Your task to perform on an android device: Open display settings Image 0: 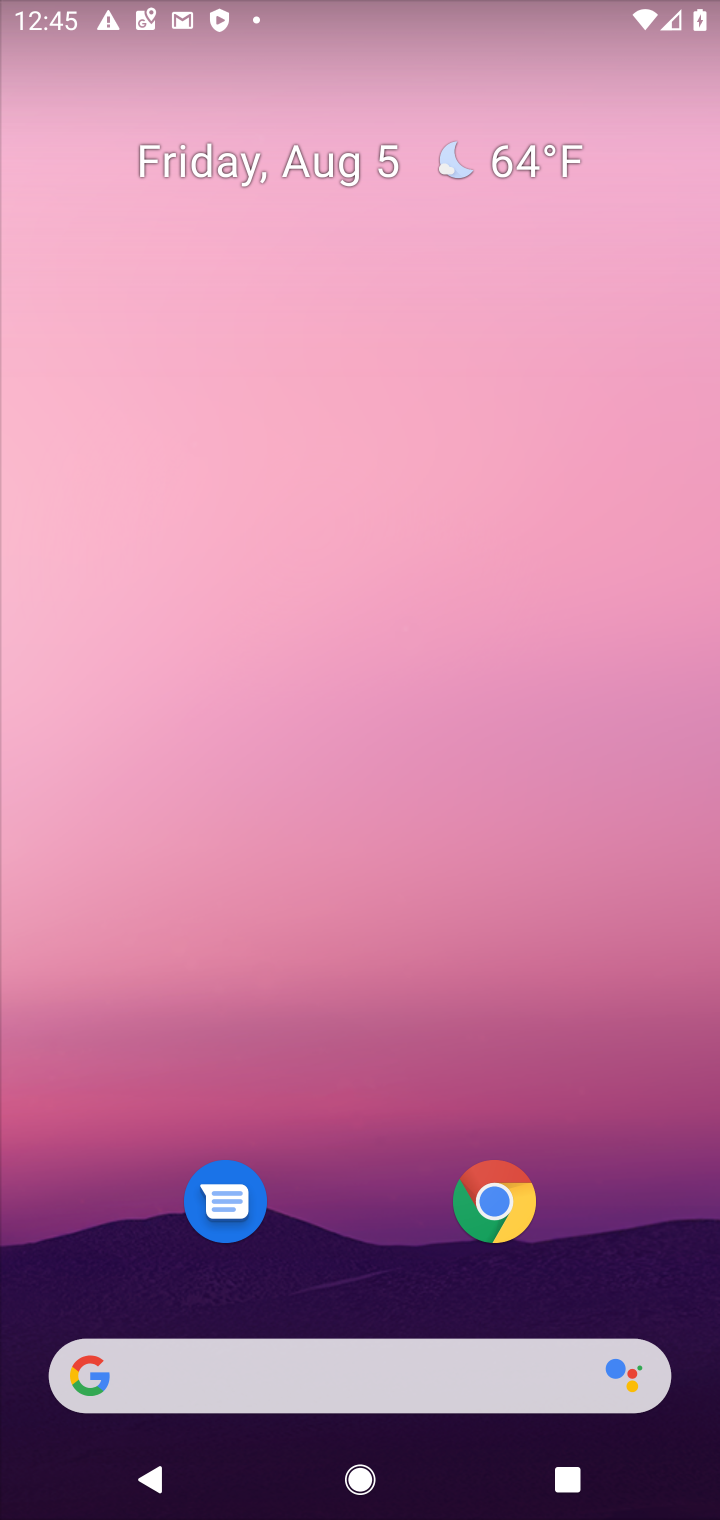
Step 0: drag from (638, 1278) to (491, 198)
Your task to perform on an android device: Open display settings Image 1: 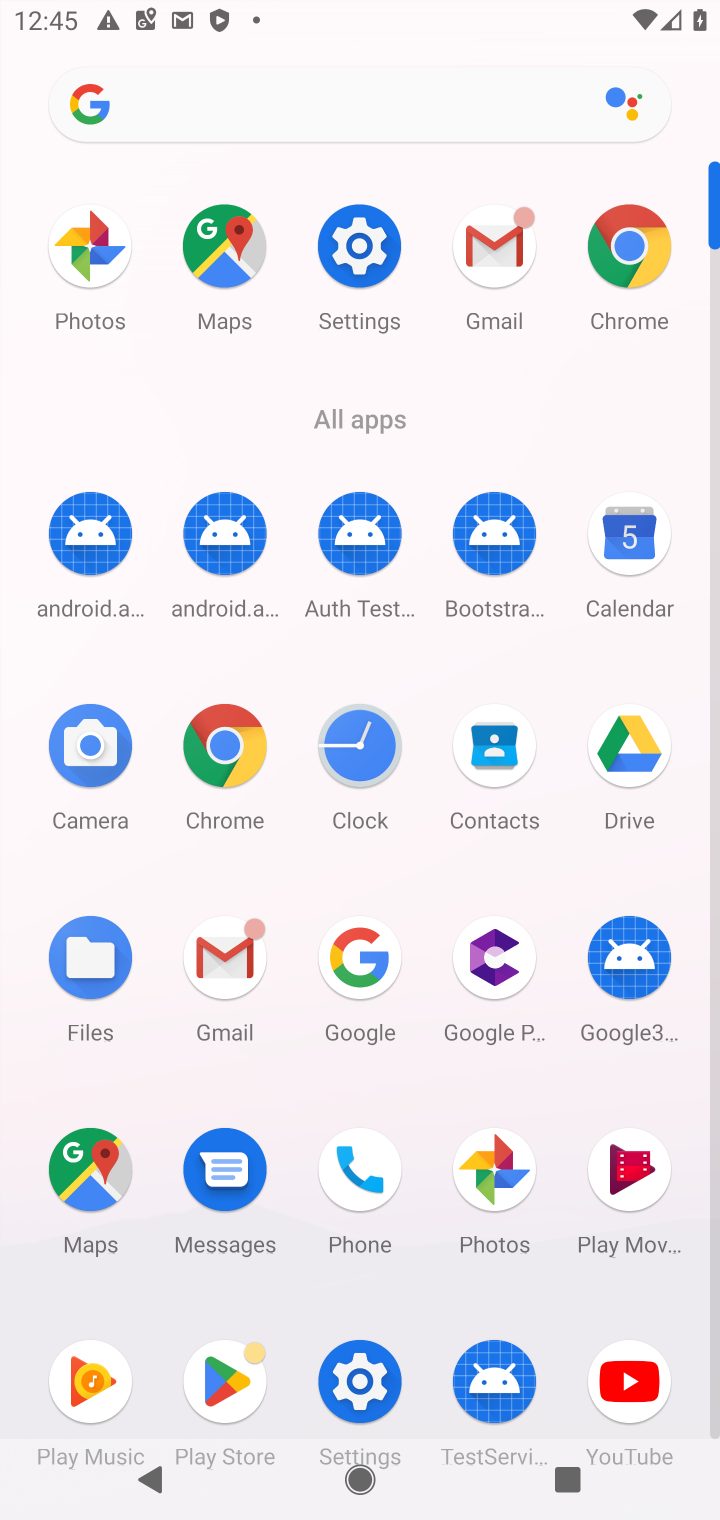
Step 1: click (353, 238)
Your task to perform on an android device: Open display settings Image 2: 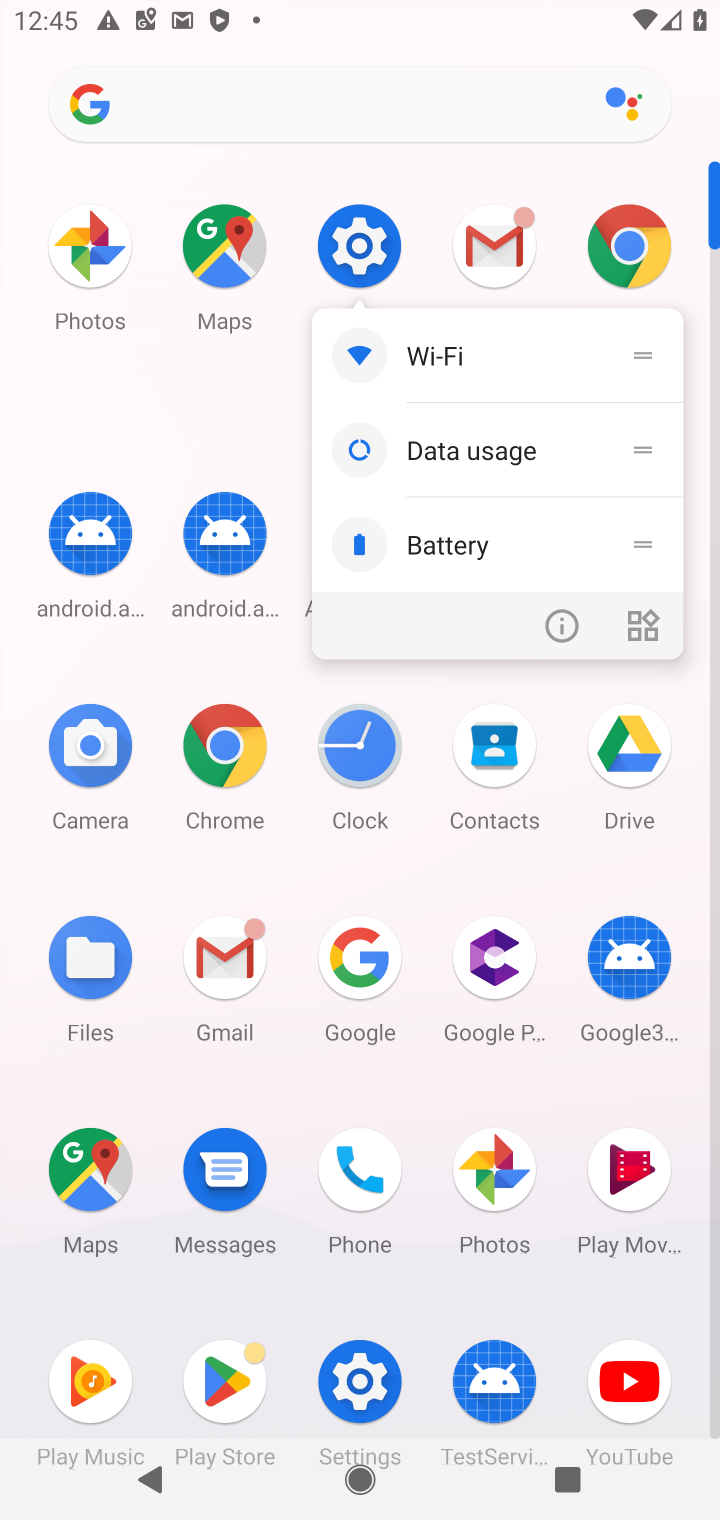
Step 2: click (353, 238)
Your task to perform on an android device: Open display settings Image 3: 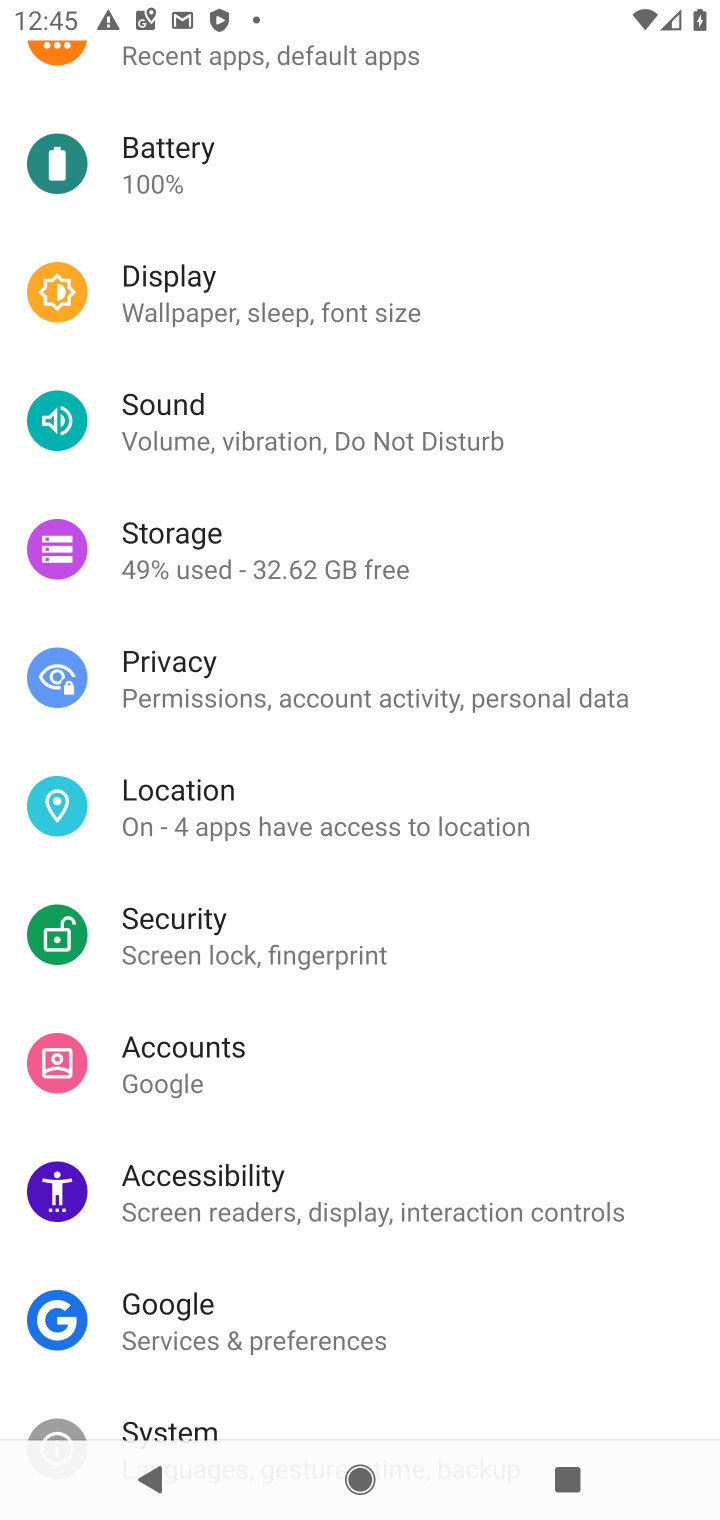
Step 3: click (353, 236)
Your task to perform on an android device: Open display settings Image 4: 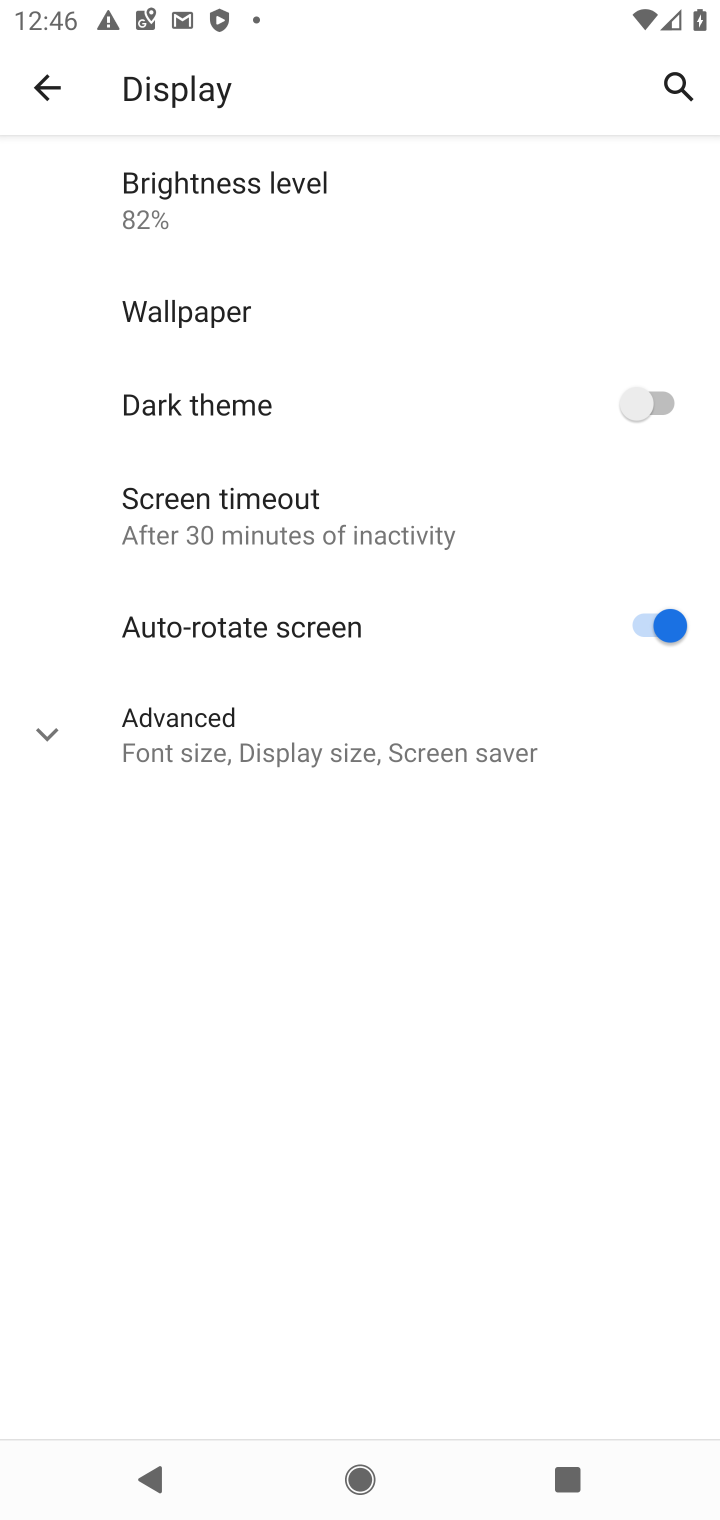
Step 4: task complete